Your task to perform on an android device: turn off wifi Image 0: 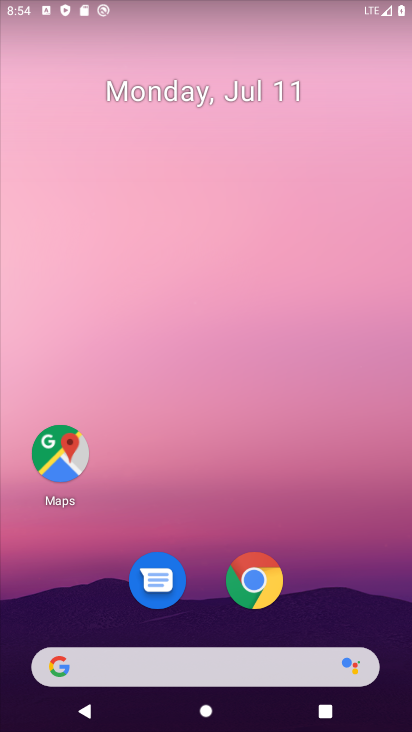
Step 0: drag from (207, 476) to (233, 73)
Your task to perform on an android device: turn off wifi Image 1: 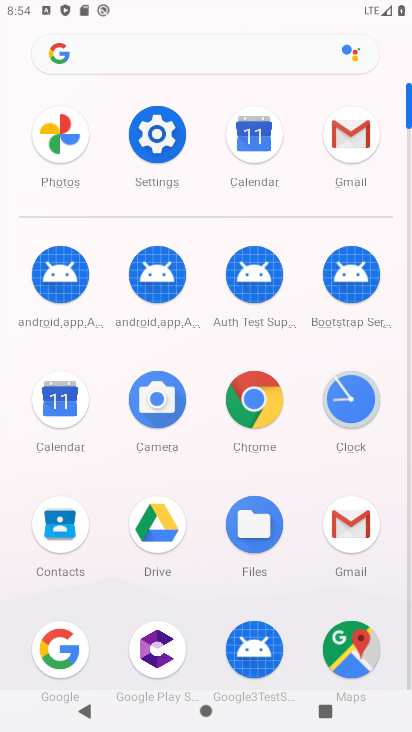
Step 1: click (168, 136)
Your task to perform on an android device: turn off wifi Image 2: 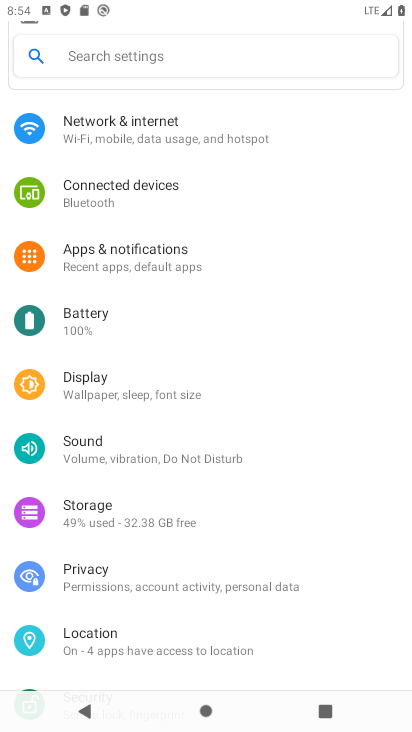
Step 2: click (175, 137)
Your task to perform on an android device: turn off wifi Image 3: 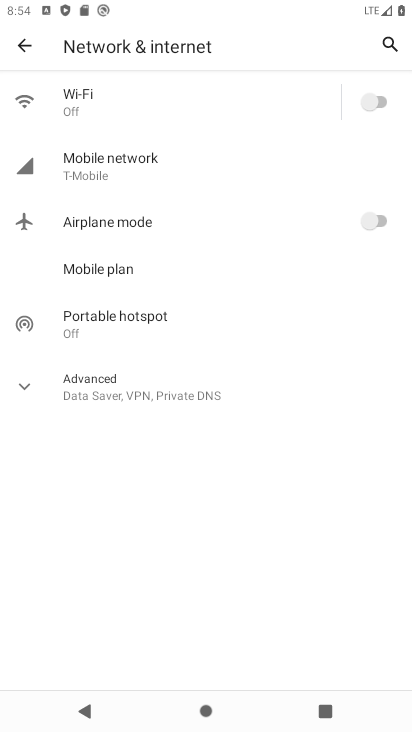
Step 3: task complete